Your task to perform on an android device: star an email in the gmail app Image 0: 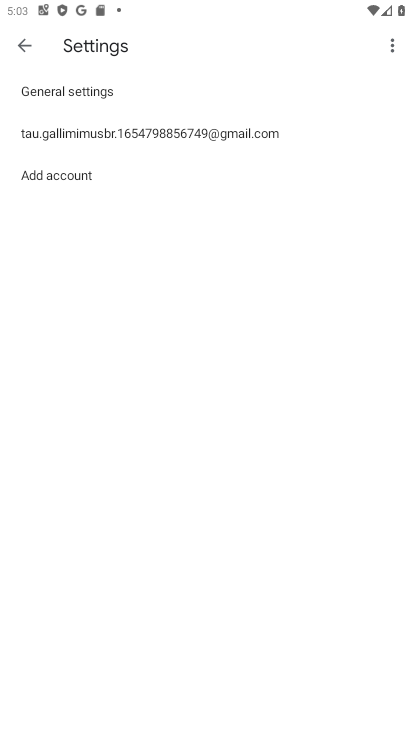
Step 0: press home button
Your task to perform on an android device: star an email in the gmail app Image 1: 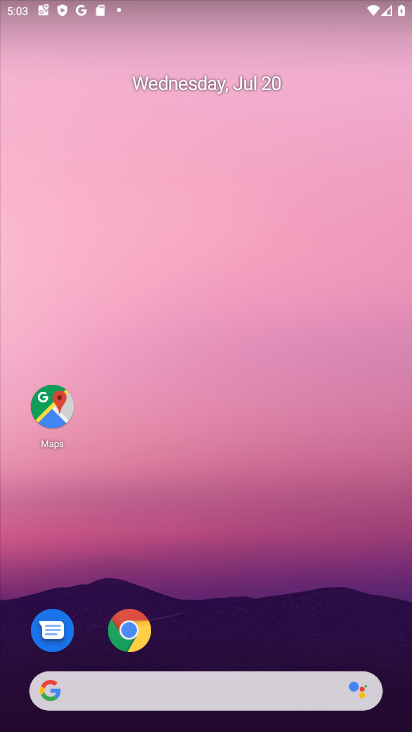
Step 1: drag from (247, 689) to (229, 14)
Your task to perform on an android device: star an email in the gmail app Image 2: 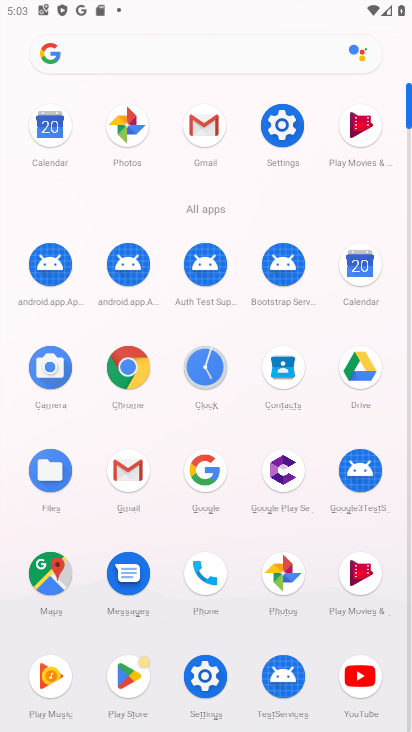
Step 2: click (206, 124)
Your task to perform on an android device: star an email in the gmail app Image 3: 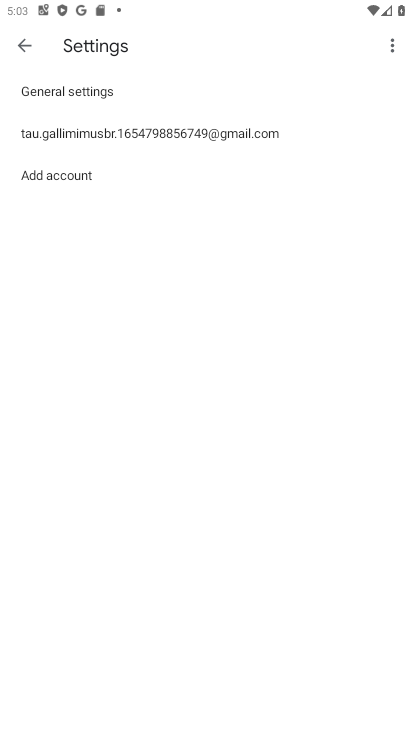
Step 3: press back button
Your task to perform on an android device: star an email in the gmail app Image 4: 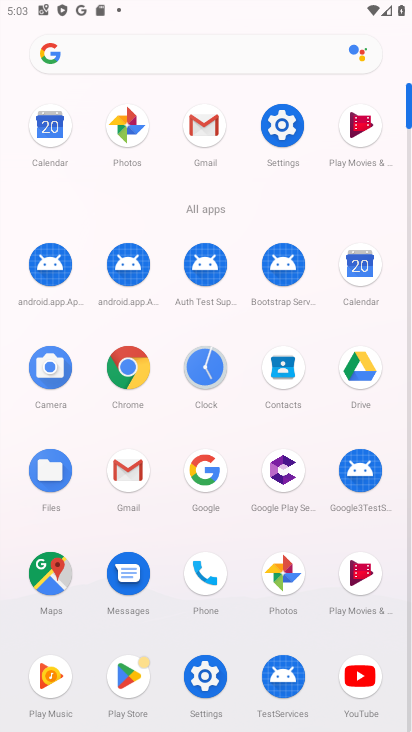
Step 4: click (127, 470)
Your task to perform on an android device: star an email in the gmail app Image 5: 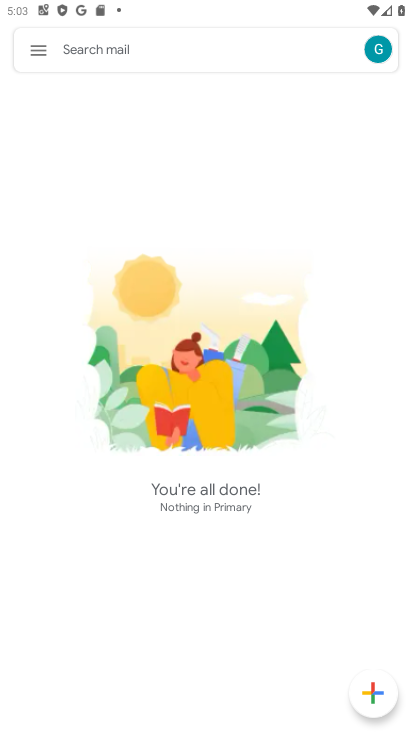
Step 5: click (38, 52)
Your task to perform on an android device: star an email in the gmail app Image 6: 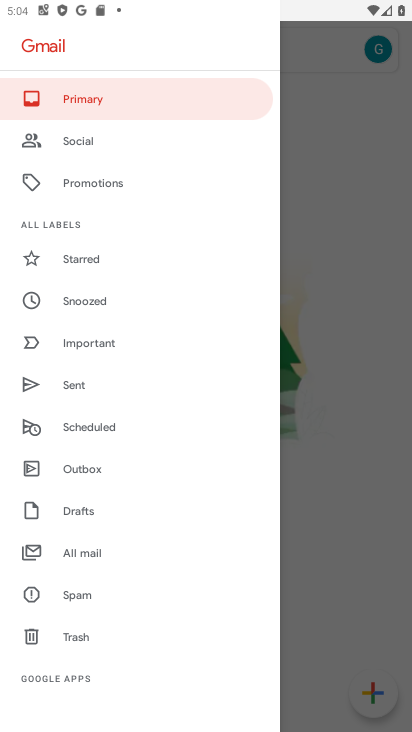
Step 6: click (74, 233)
Your task to perform on an android device: star an email in the gmail app Image 7: 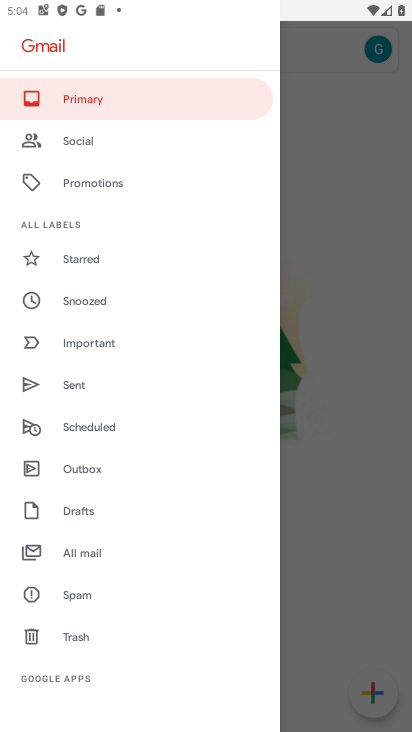
Step 7: click (92, 252)
Your task to perform on an android device: star an email in the gmail app Image 8: 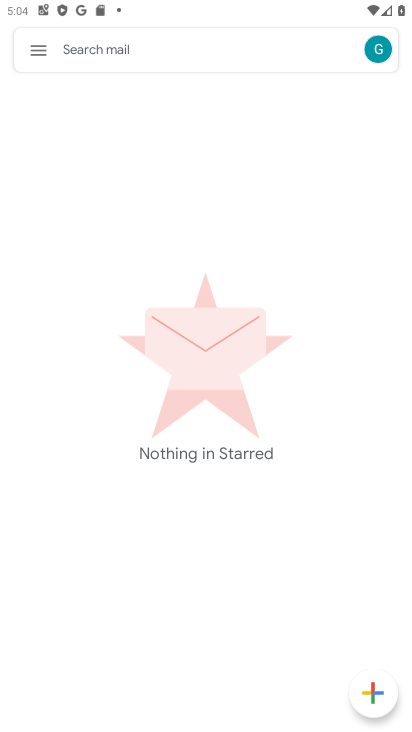
Step 8: click (43, 49)
Your task to perform on an android device: star an email in the gmail app Image 9: 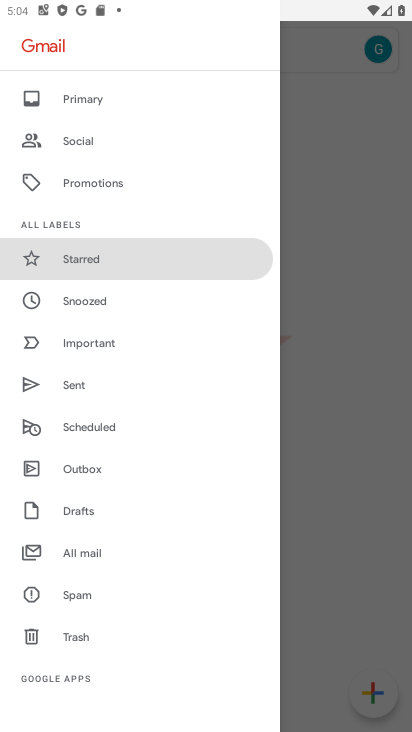
Step 9: click (87, 300)
Your task to perform on an android device: star an email in the gmail app Image 10: 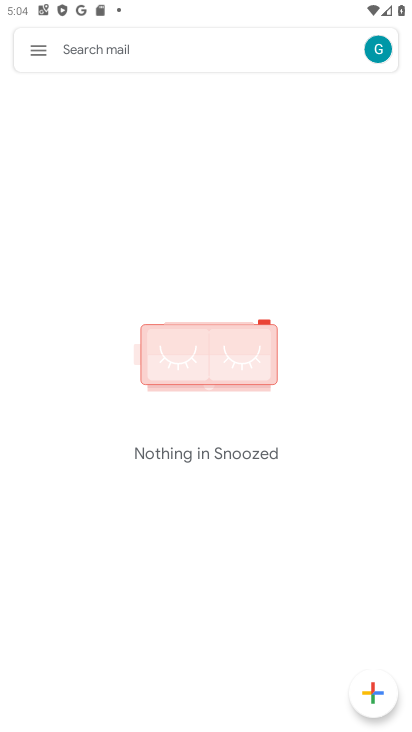
Step 10: click (41, 46)
Your task to perform on an android device: star an email in the gmail app Image 11: 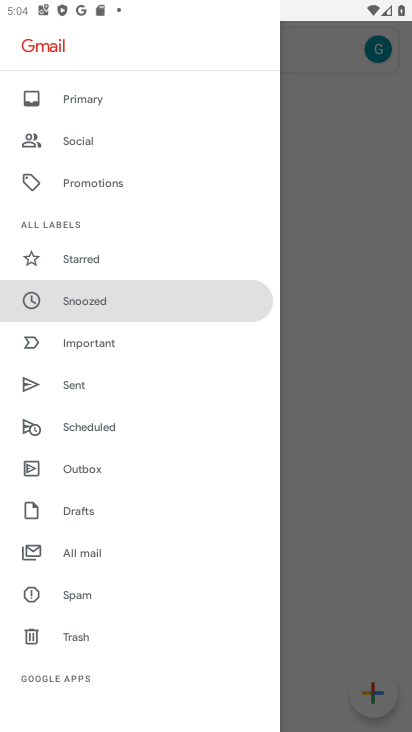
Step 11: click (83, 345)
Your task to perform on an android device: star an email in the gmail app Image 12: 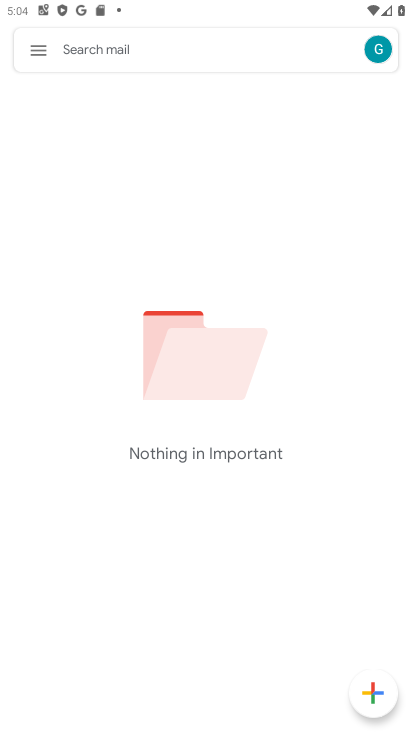
Step 12: click (42, 47)
Your task to perform on an android device: star an email in the gmail app Image 13: 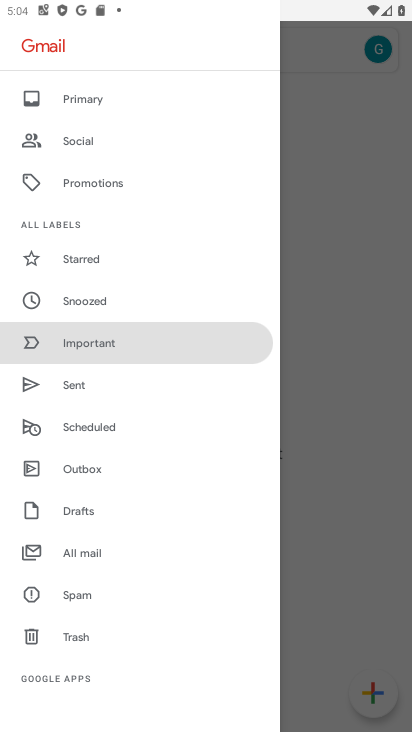
Step 13: click (75, 382)
Your task to perform on an android device: star an email in the gmail app Image 14: 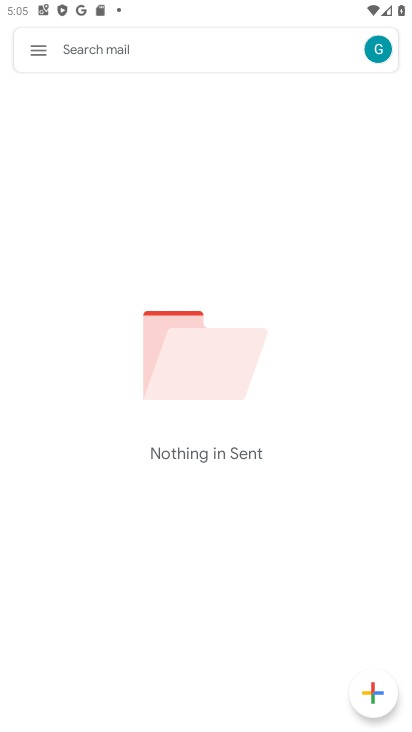
Step 14: task complete